Your task to perform on an android device: Open Google Chrome and click the shortcut for Amazon.com Image 0: 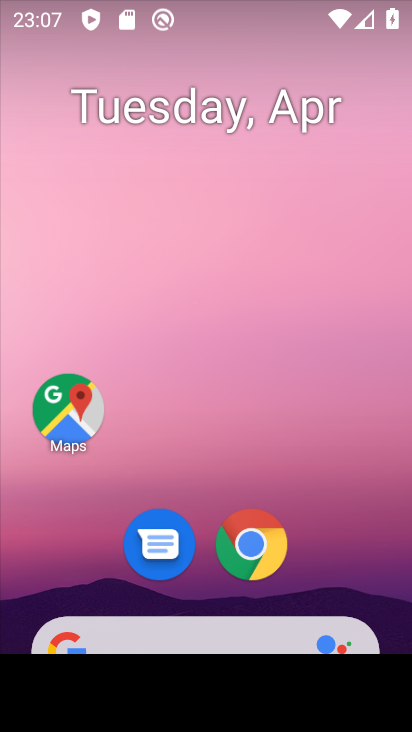
Step 0: click (272, 548)
Your task to perform on an android device: Open Google Chrome and click the shortcut for Amazon.com Image 1: 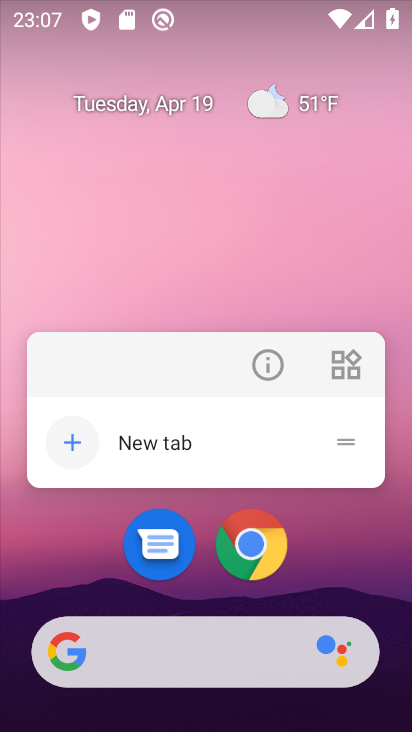
Step 1: click (272, 548)
Your task to perform on an android device: Open Google Chrome and click the shortcut for Amazon.com Image 2: 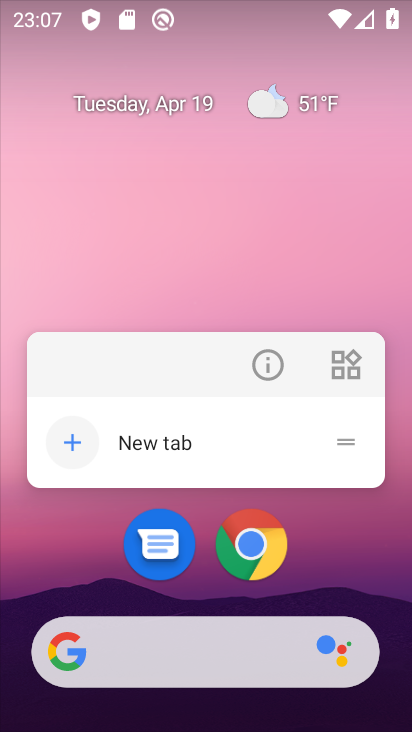
Step 2: click (238, 546)
Your task to perform on an android device: Open Google Chrome and click the shortcut for Amazon.com Image 3: 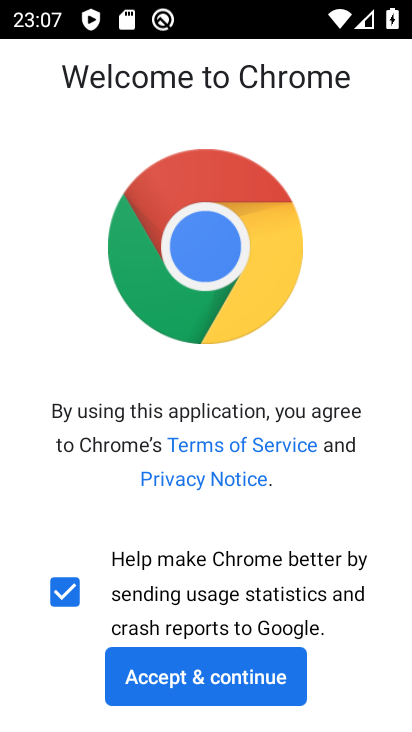
Step 3: click (227, 688)
Your task to perform on an android device: Open Google Chrome and click the shortcut for Amazon.com Image 4: 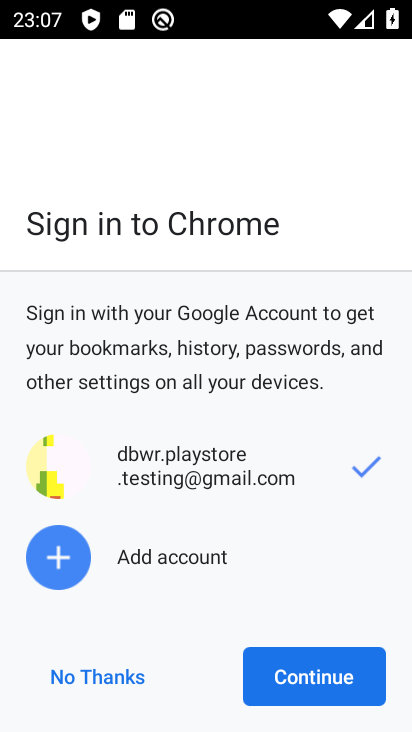
Step 4: click (287, 676)
Your task to perform on an android device: Open Google Chrome and click the shortcut for Amazon.com Image 5: 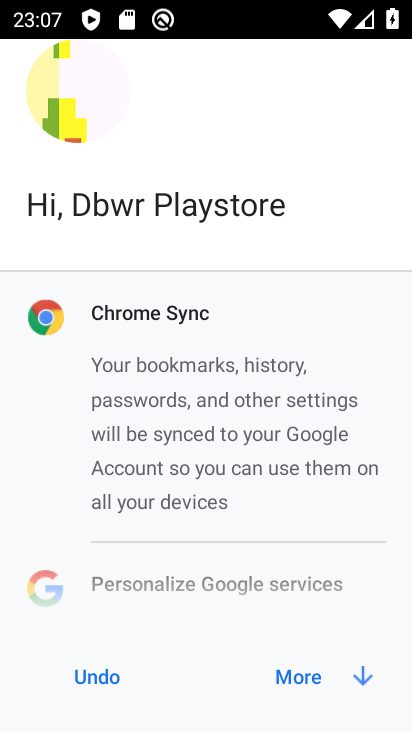
Step 5: click (287, 674)
Your task to perform on an android device: Open Google Chrome and click the shortcut for Amazon.com Image 6: 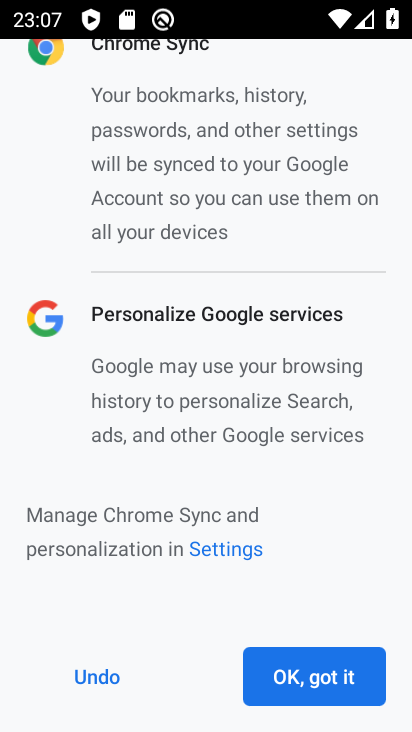
Step 6: click (287, 674)
Your task to perform on an android device: Open Google Chrome and click the shortcut for Amazon.com Image 7: 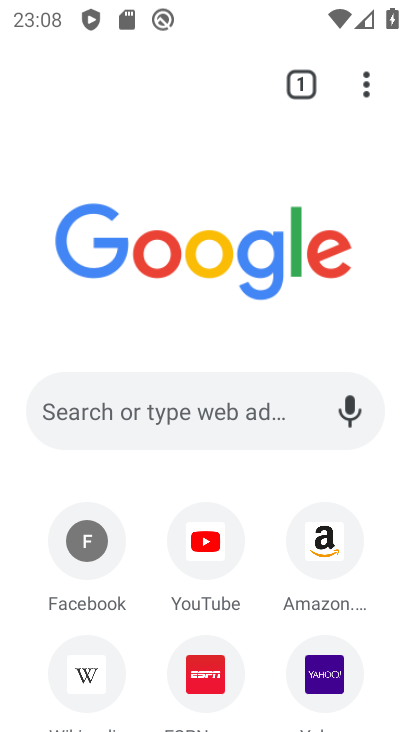
Step 7: click (287, 563)
Your task to perform on an android device: Open Google Chrome and click the shortcut for Amazon.com Image 8: 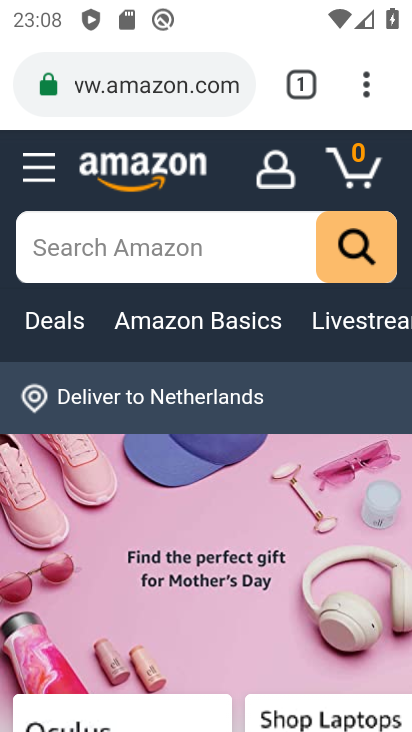
Step 8: task complete